Your task to perform on an android device: check out phone information Image 0: 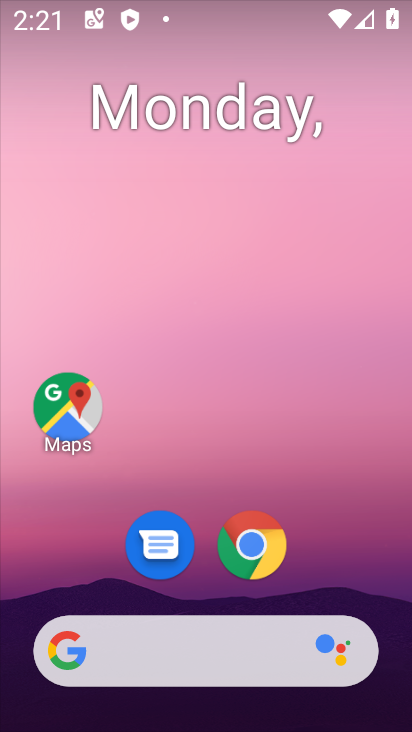
Step 0: drag from (201, 540) to (257, 85)
Your task to perform on an android device: check out phone information Image 1: 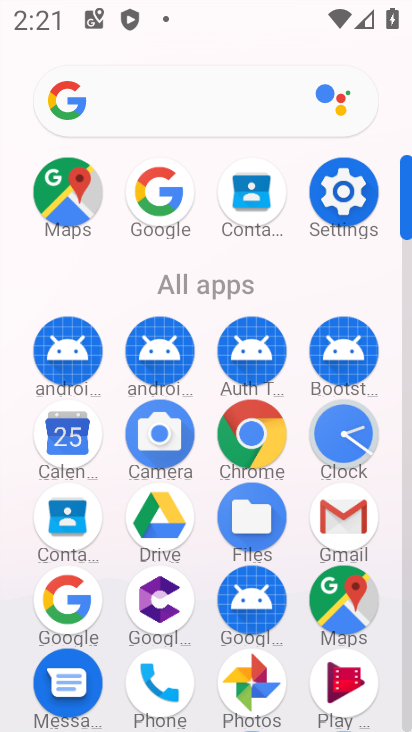
Step 1: click (345, 194)
Your task to perform on an android device: check out phone information Image 2: 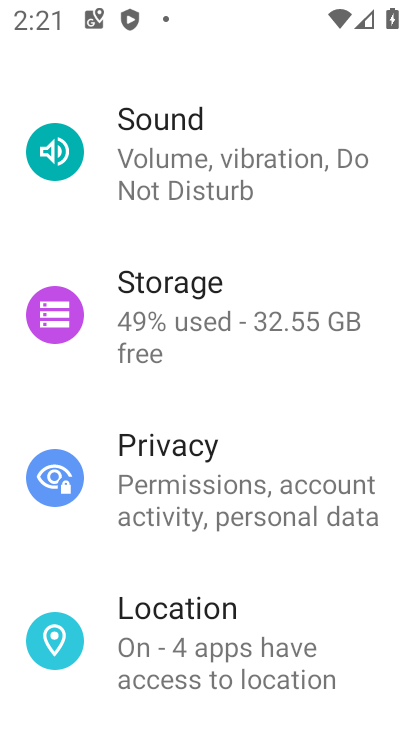
Step 2: drag from (201, 641) to (304, 55)
Your task to perform on an android device: check out phone information Image 3: 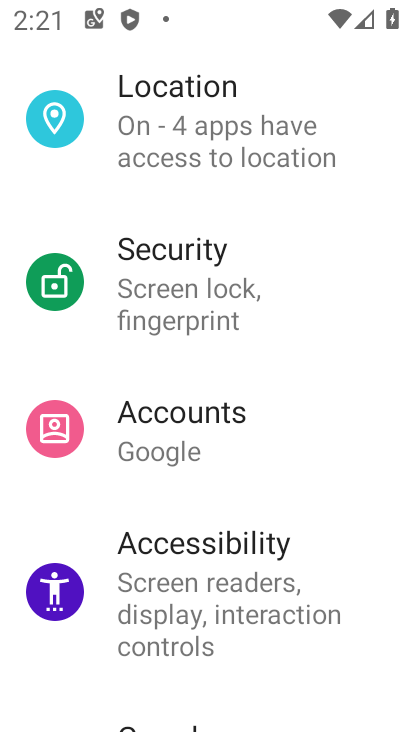
Step 3: drag from (237, 567) to (308, 77)
Your task to perform on an android device: check out phone information Image 4: 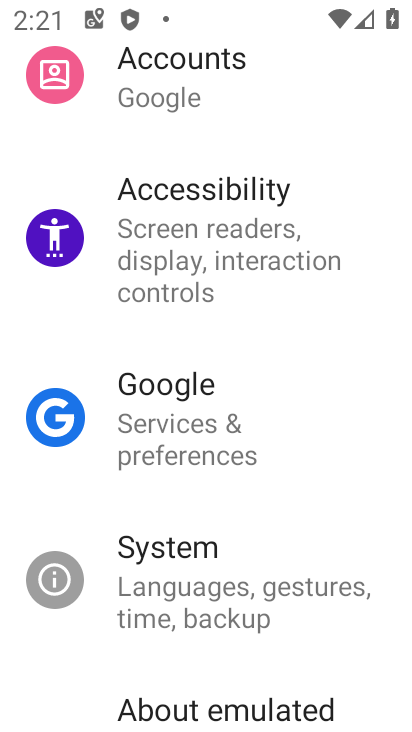
Step 4: drag from (186, 705) to (330, 55)
Your task to perform on an android device: check out phone information Image 5: 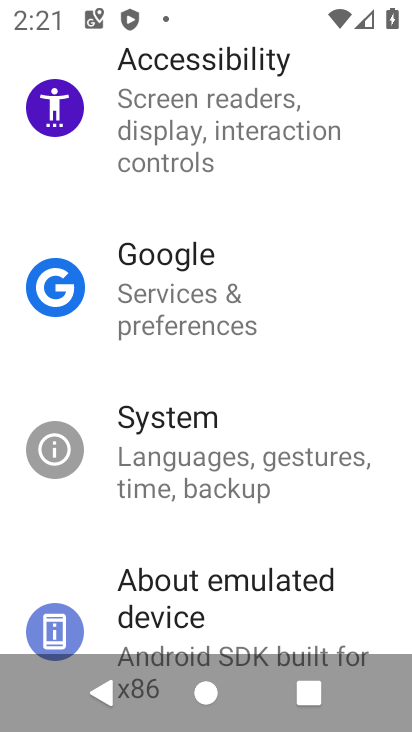
Step 5: drag from (216, 561) to (324, 35)
Your task to perform on an android device: check out phone information Image 6: 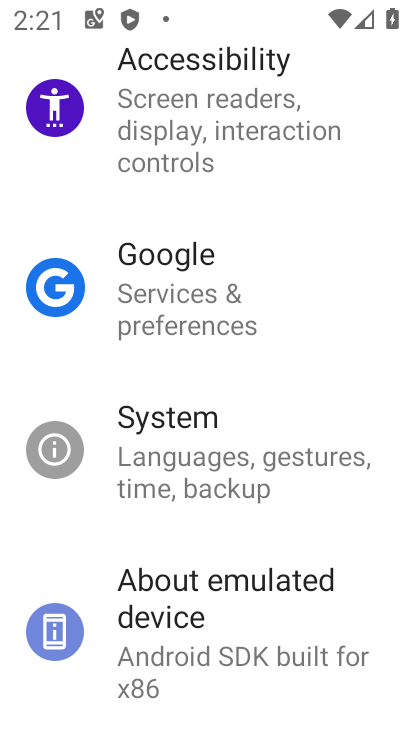
Step 6: click (238, 630)
Your task to perform on an android device: check out phone information Image 7: 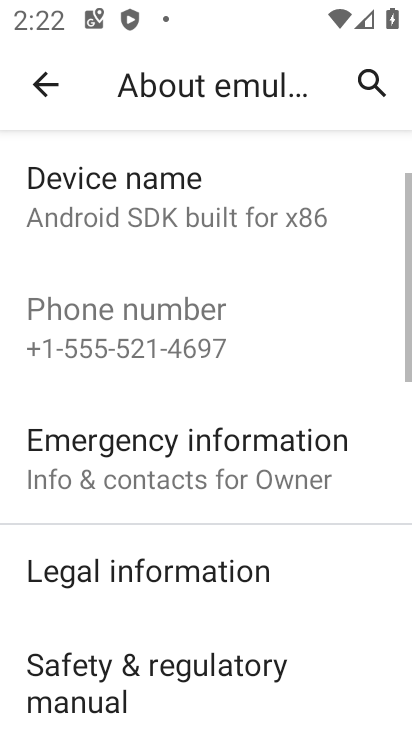
Step 7: task complete